Your task to perform on an android device: check out phone information Image 0: 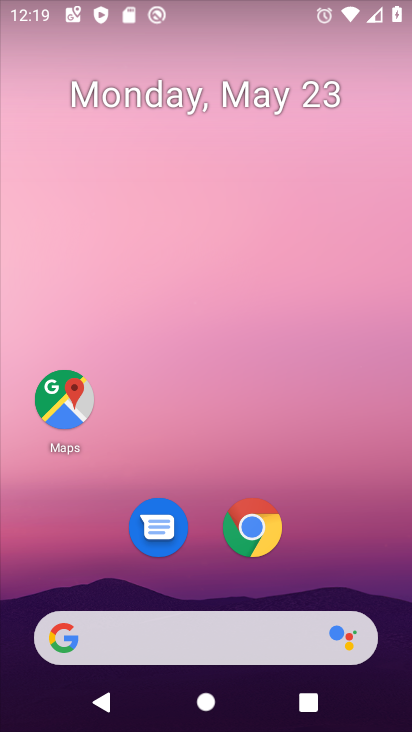
Step 0: drag from (377, 598) to (322, 43)
Your task to perform on an android device: check out phone information Image 1: 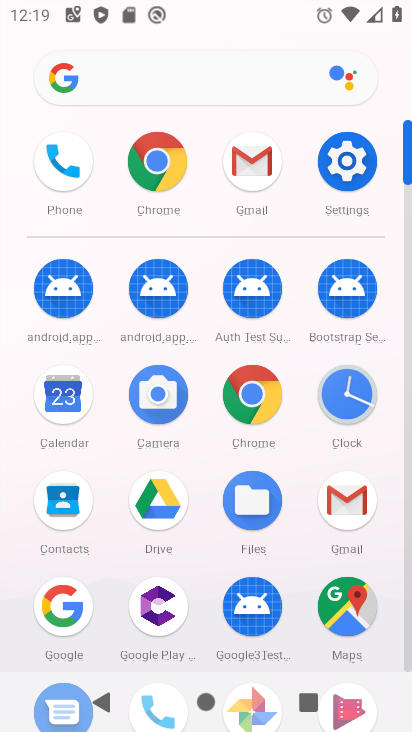
Step 1: click (349, 168)
Your task to perform on an android device: check out phone information Image 2: 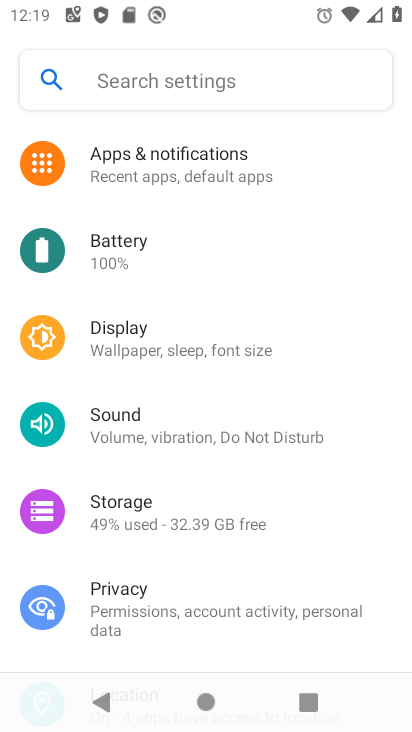
Step 2: task complete